Your task to perform on an android device: Open network settings Image 0: 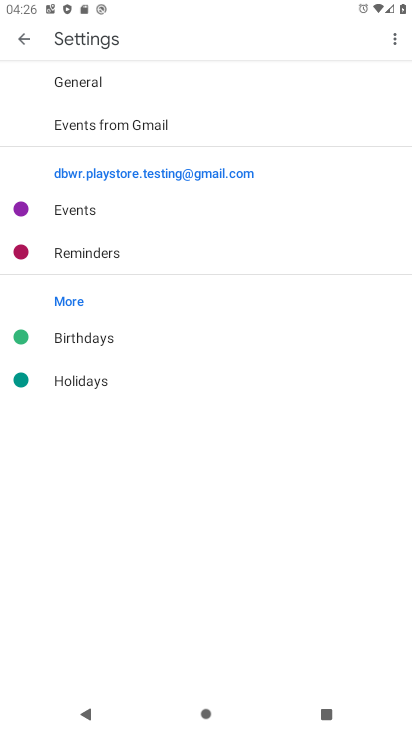
Step 0: drag from (194, 14) to (186, 693)
Your task to perform on an android device: Open network settings Image 1: 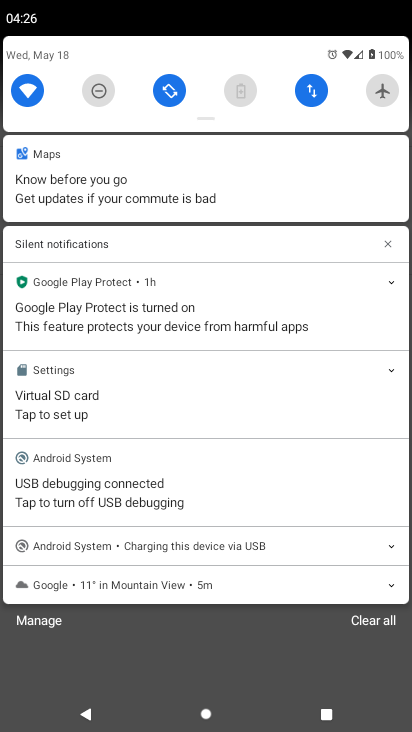
Step 1: click (311, 88)
Your task to perform on an android device: Open network settings Image 2: 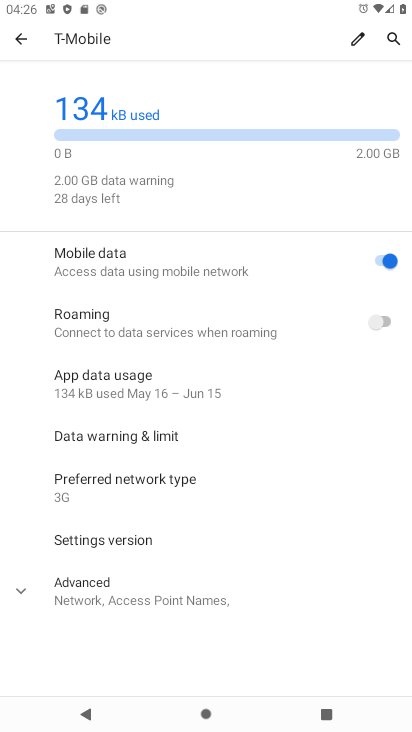
Step 2: task complete